Your task to perform on an android device: Open the phone app and click the voicemail tab. Image 0: 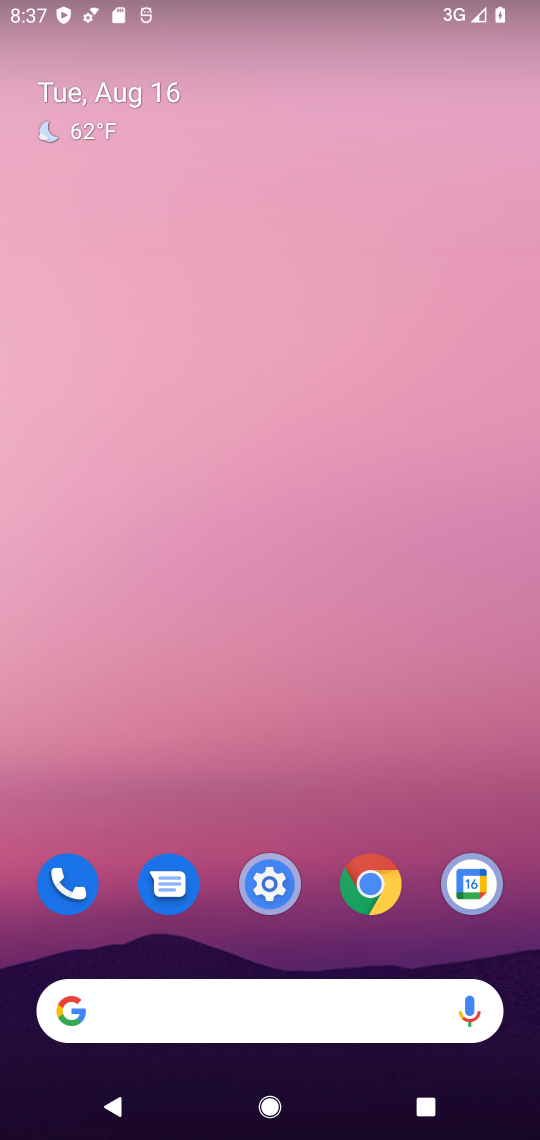
Step 0: drag from (420, 946) to (423, 175)
Your task to perform on an android device: Open the phone app and click the voicemail tab. Image 1: 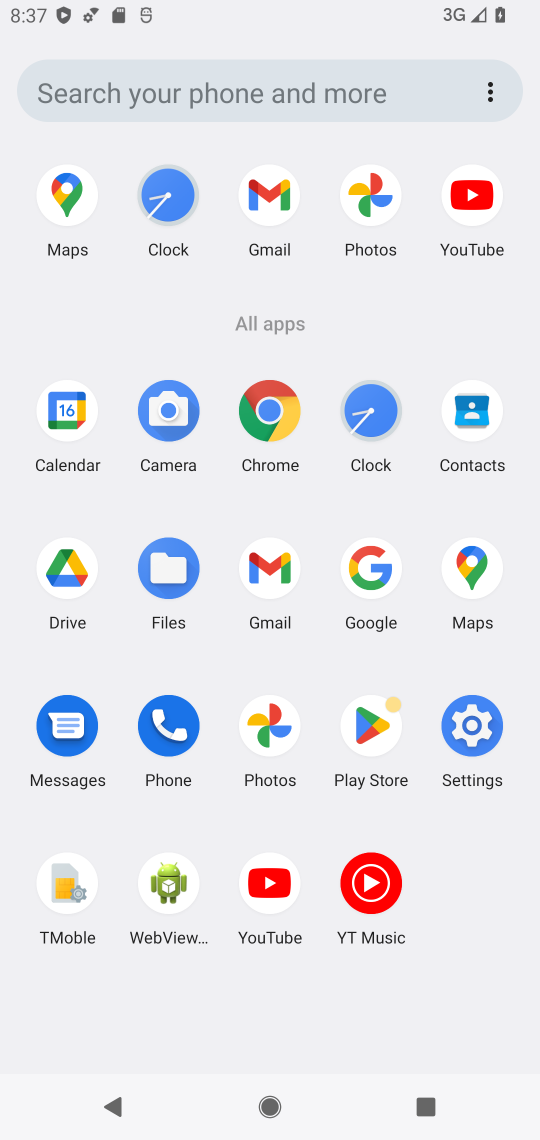
Step 1: click (165, 725)
Your task to perform on an android device: Open the phone app and click the voicemail tab. Image 2: 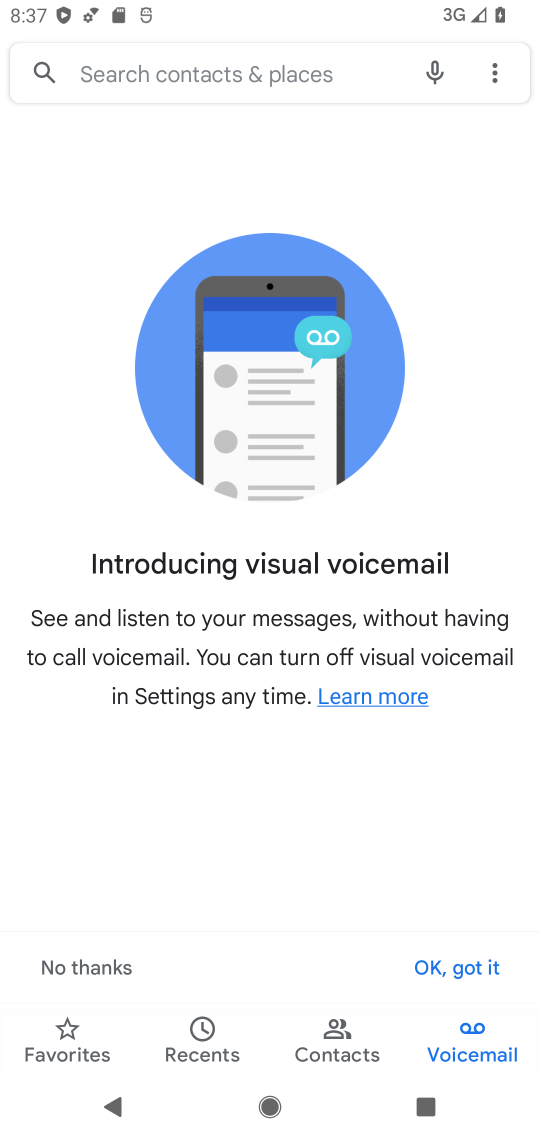
Step 2: click (480, 964)
Your task to perform on an android device: Open the phone app and click the voicemail tab. Image 3: 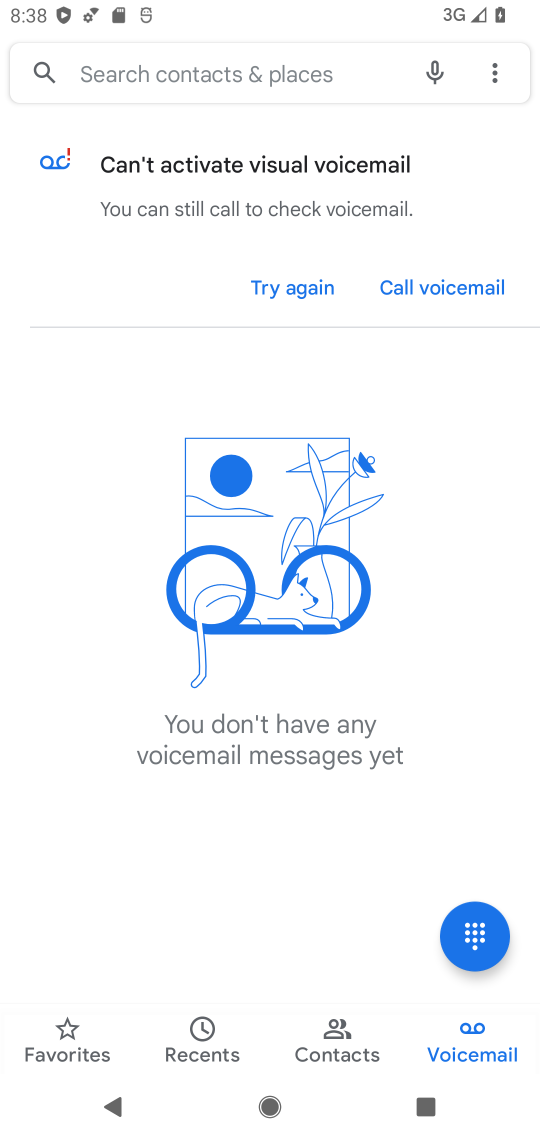
Step 3: task complete